Your task to perform on an android device: add a contact in the contacts app Image 0: 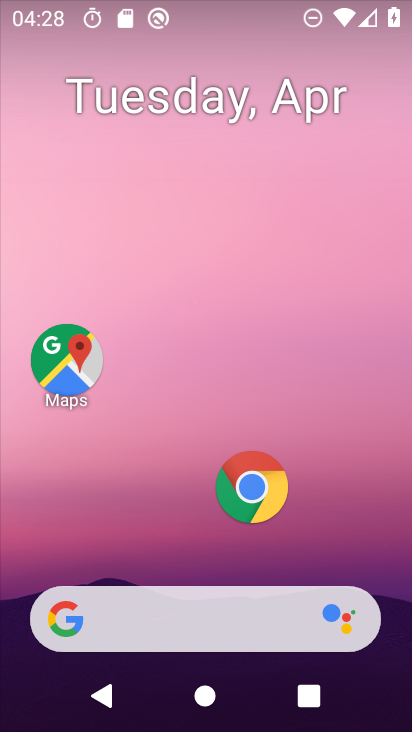
Step 0: drag from (183, 399) to (283, 0)
Your task to perform on an android device: add a contact in the contacts app Image 1: 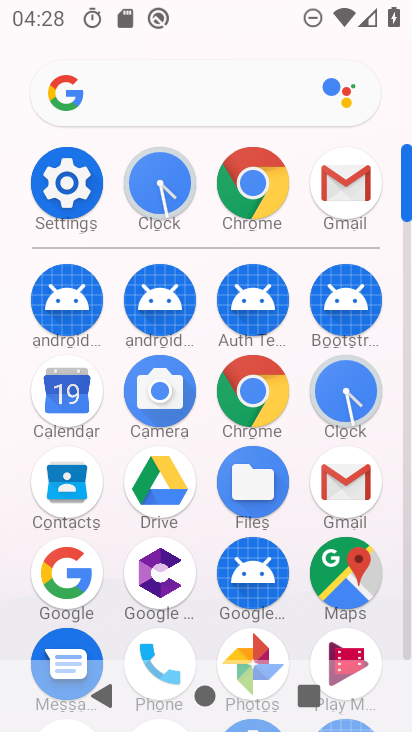
Step 1: click (63, 487)
Your task to perform on an android device: add a contact in the contacts app Image 2: 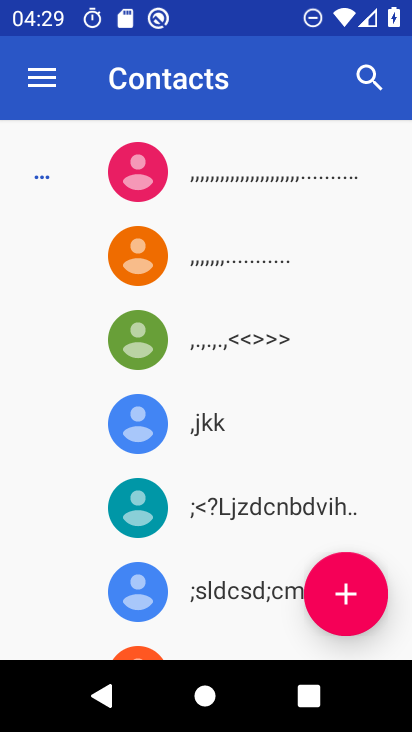
Step 2: click (340, 617)
Your task to perform on an android device: add a contact in the contacts app Image 3: 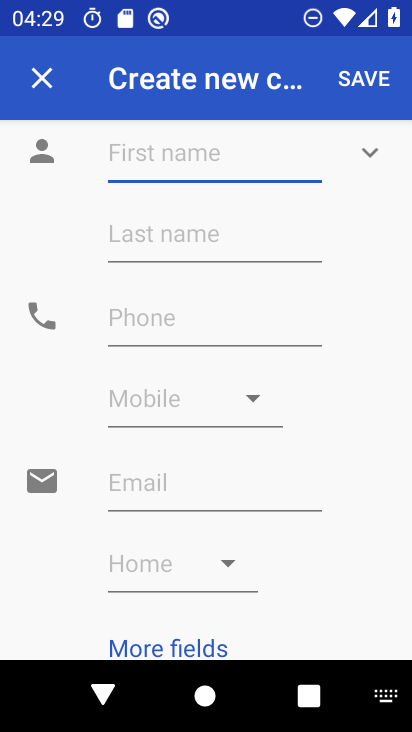
Step 3: click (160, 165)
Your task to perform on an android device: add a contact in the contacts app Image 4: 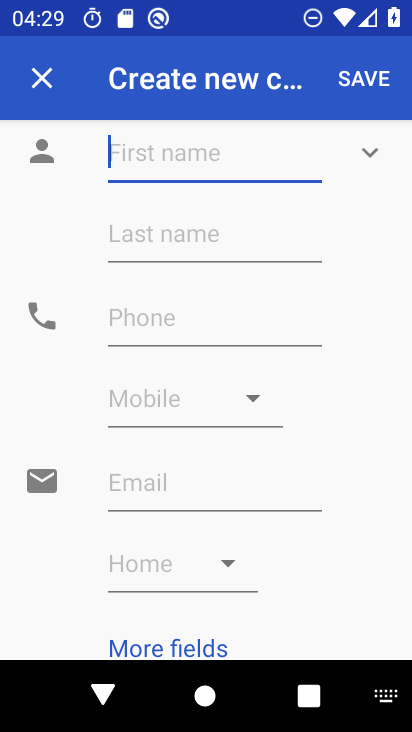
Step 4: type "hhv"
Your task to perform on an android device: add a contact in the contacts app Image 5: 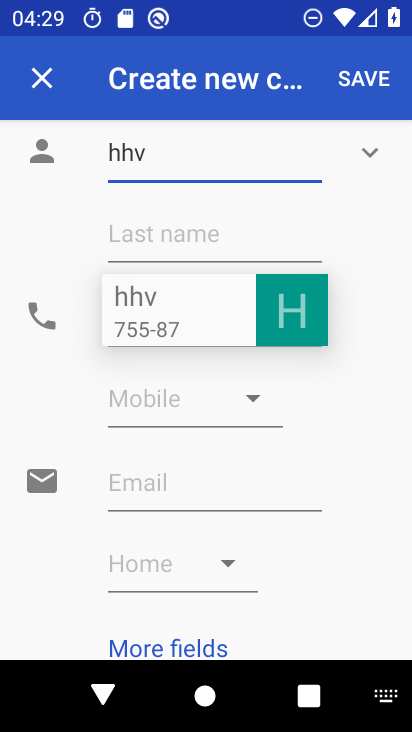
Step 5: click (133, 315)
Your task to perform on an android device: add a contact in the contacts app Image 6: 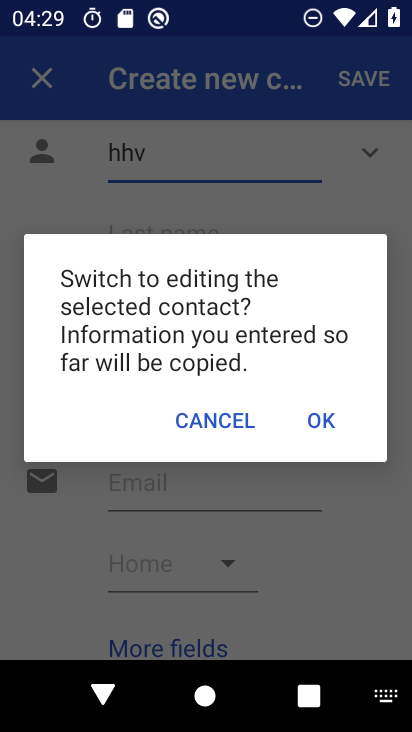
Step 6: click (309, 422)
Your task to perform on an android device: add a contact in the contacts app Image 7: 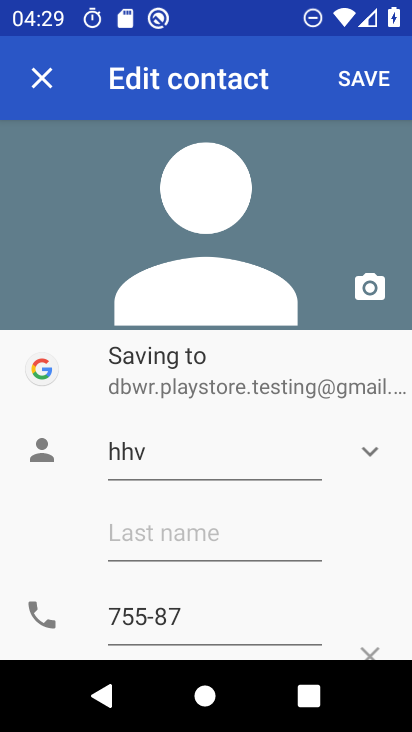
Step 7: click (356, 66)
Your task to perform on an android device: add a contact in the contacts app Image 8: 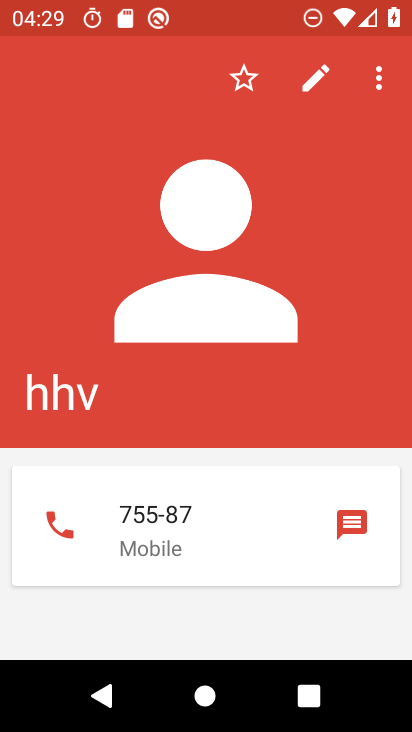
Step 8: task complete